Your task to perform on an android device: turn on wifi Image 0: 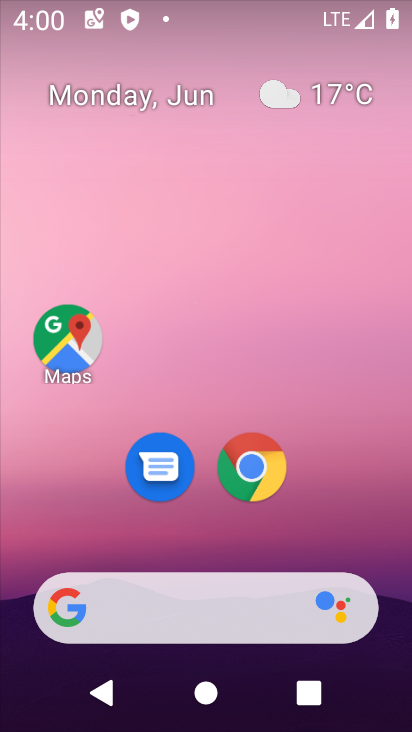
Step 0: drag from (219, 542) to (269, 28)
Your task to perform on an android device: turn on wifi Image 1: 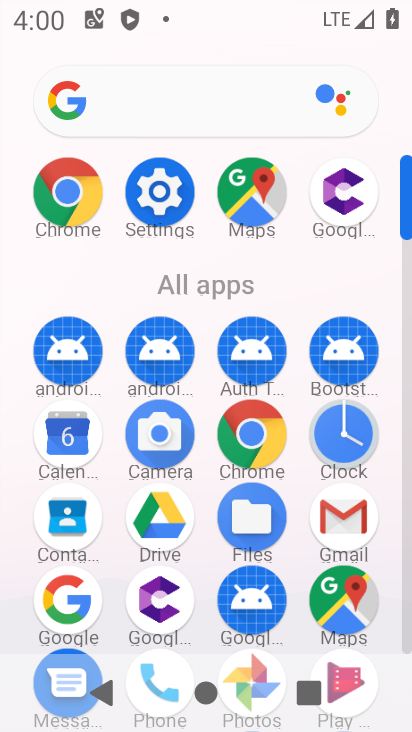
Step 1: click (161, 180)
Your task to perform on an android device: turn on wifi Image 2: 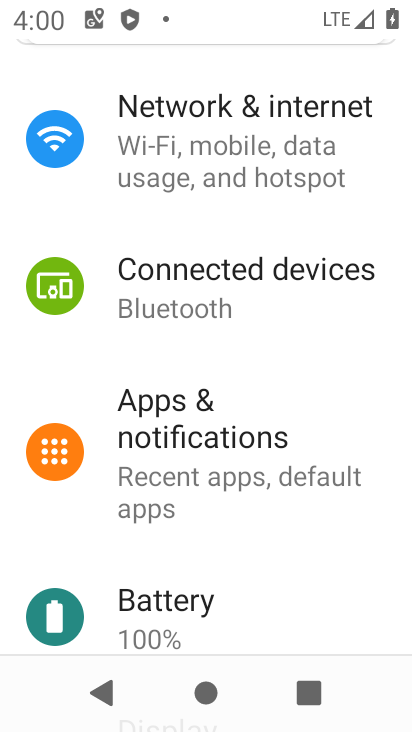
Step 2: drag from (255, 201) to (161, 625)
Your task to perform on an android device: turn on wifi Image 3: 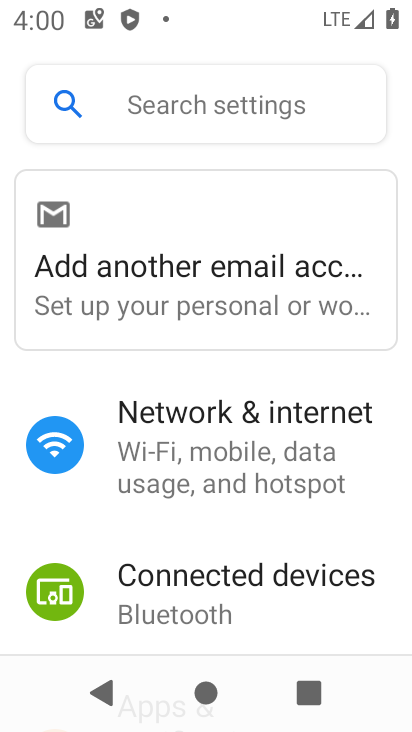
Step 3: click (211, 451)
Your task to perform on an android device: turn on wifi Image 4: 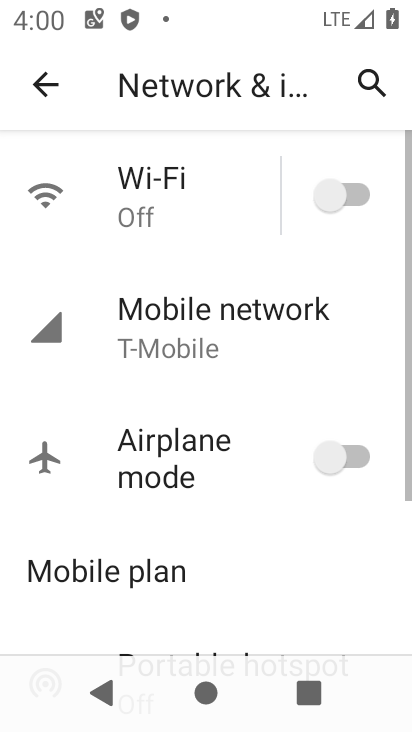
Step 4: click (340, 189)
Your task to perform on an android device: turn on wifi Image 5: 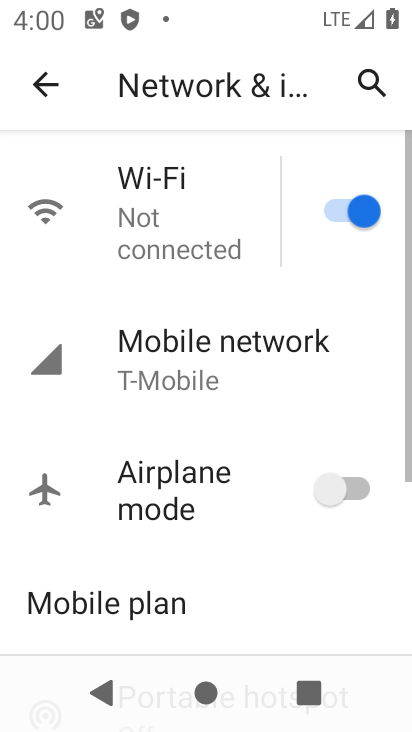
Step 5: task complete